Your task to perform on an android device: check battery use Image 0: 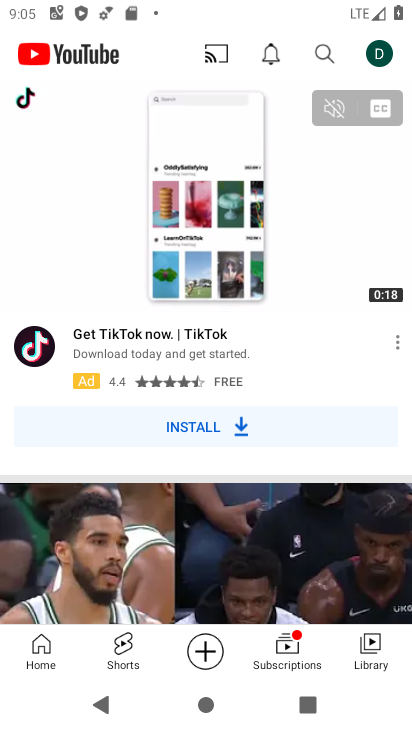
Step 0: press home button
Your task to perform on an android device: check battery use Image 1: 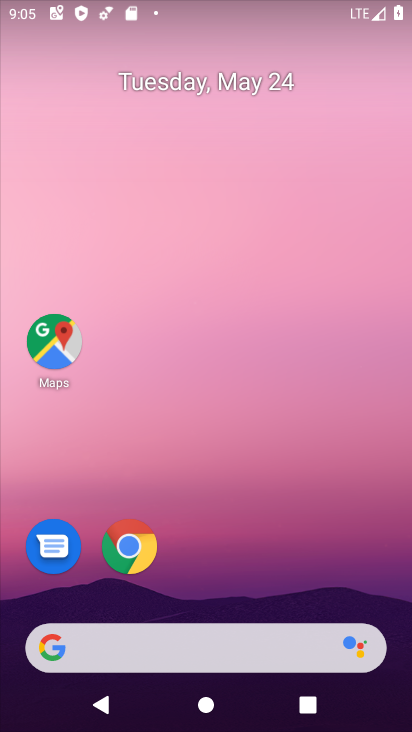
Step 1: drag from (248, 522) to (296, 71)
Your task to perform on an android device: check battery use Image 2: 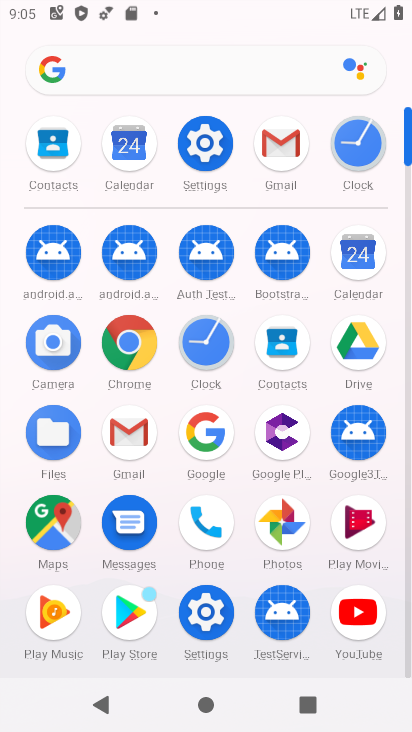
Step 2: click (215, 146)
Your task to perform on an android device: check battery use Image 3: 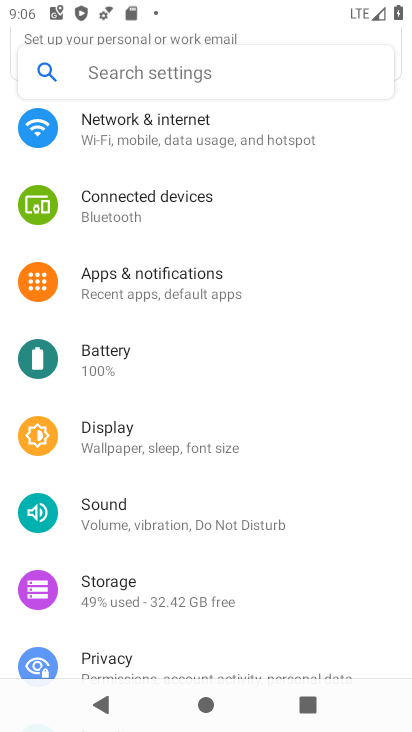
Step 3: click (153, 365)
Your task to perform on an android device: check battery use Image 4: 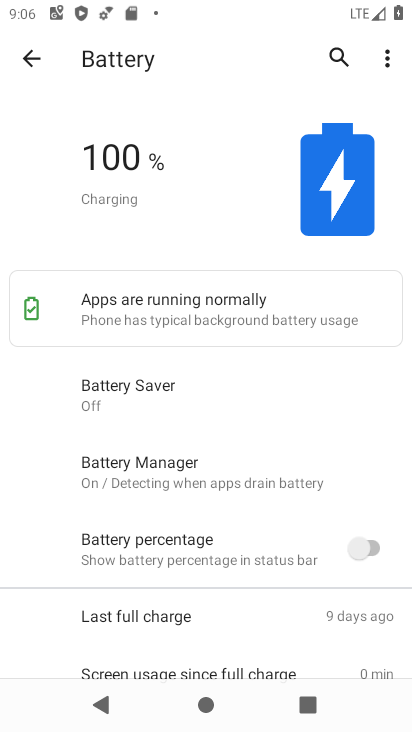
Step 4: click (383, 55)
Your task to perform on an android device: check battery use Image 5: 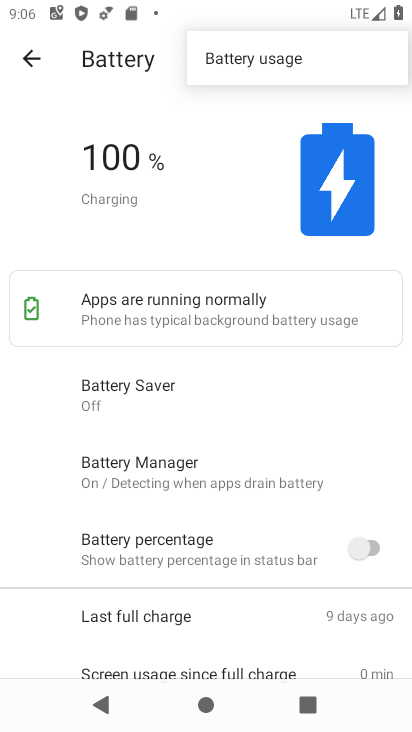
Step 5: click (314, 56)
Your task to perform on an android device: check battery use Image 6: 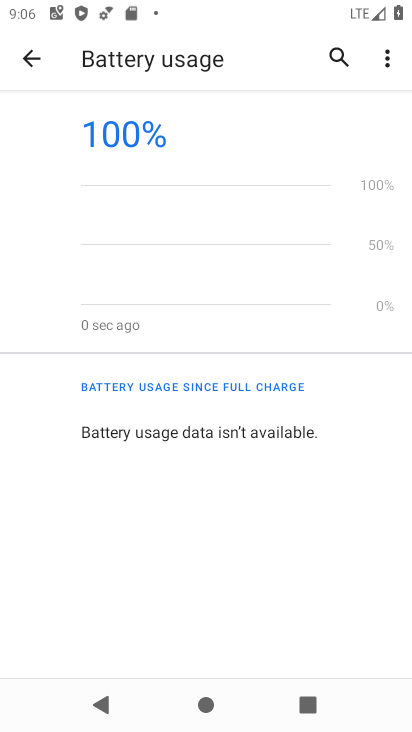
Step 6: task complete